Your task to perform on an android device: turn on priority inbox in the gmail app Image 0: 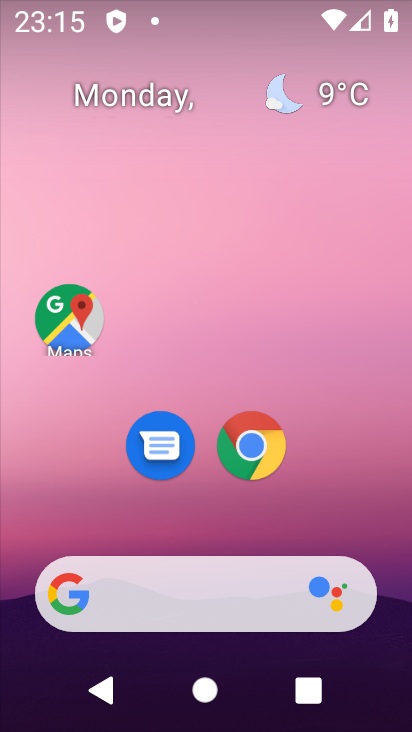
Step 0: drag from (374, 583) to (316, 18)
Your task to perform on an android device: turn on priority inbox in the gmail app Image 1: 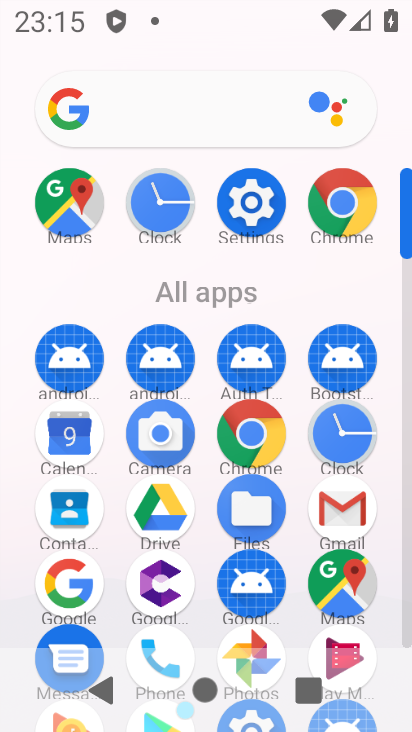
Step 1: click (342, 513)
Your task to perform on an android device: turn on priority inbox in the gmail app Image 2: 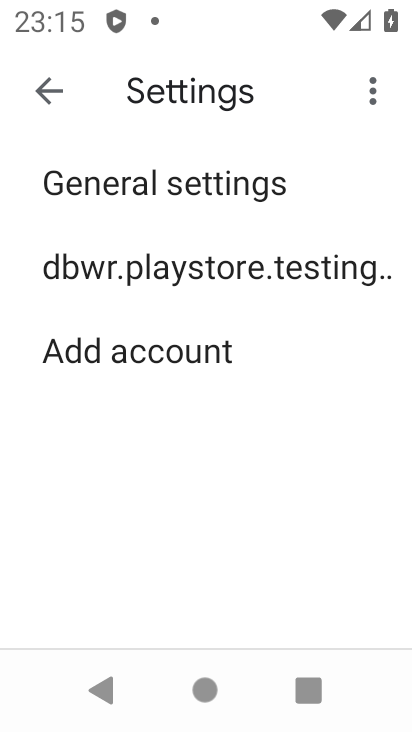
Step 2: click (208, 271)
Your task to perform on an android device: turn on priority inbox in the gmail app Image 3: 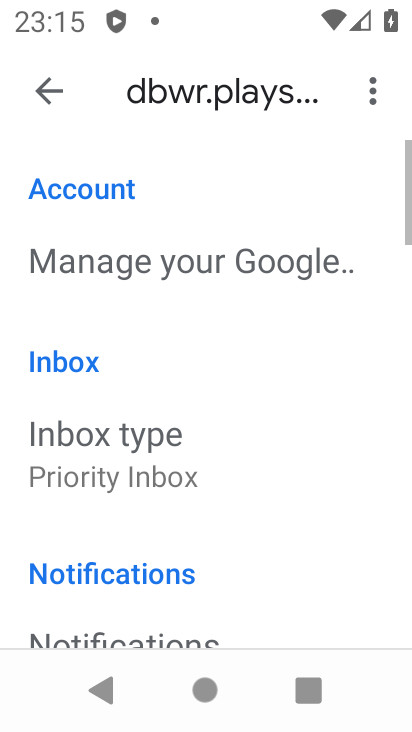
Step 3: click (167, 476)
Your task to perform on an android device: turn on priority inbox in the gmail app Image 4: 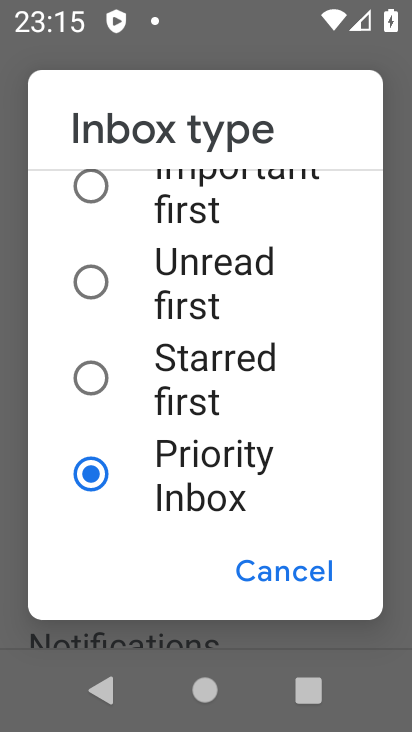
Step 4: task complete